Your task to perform on an android device: Go to wifi settings Image 0: 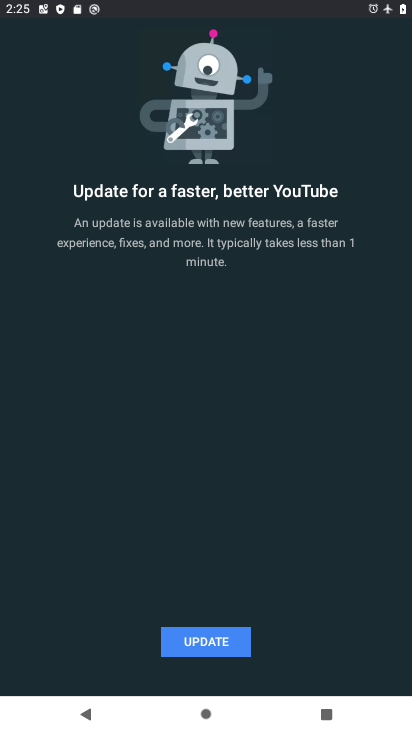
Step 0: drag from (255, 8) to (272, 553)
Your task to perform on an android device: Go to wifi settings Image 1: 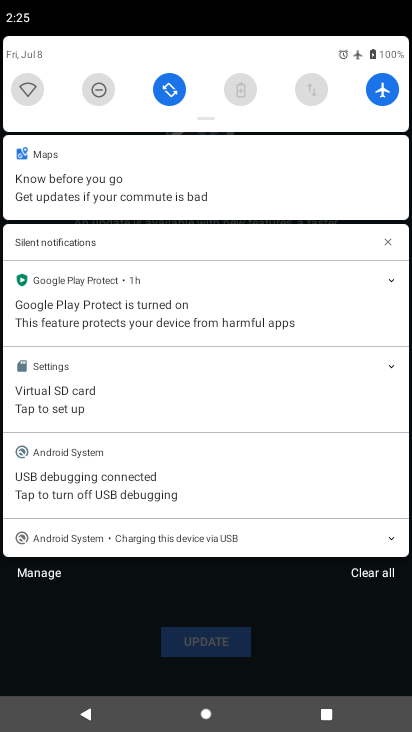
Step 1: click (20, 101)
Your task to perform on an android device: Go to wifi settings Image 2: 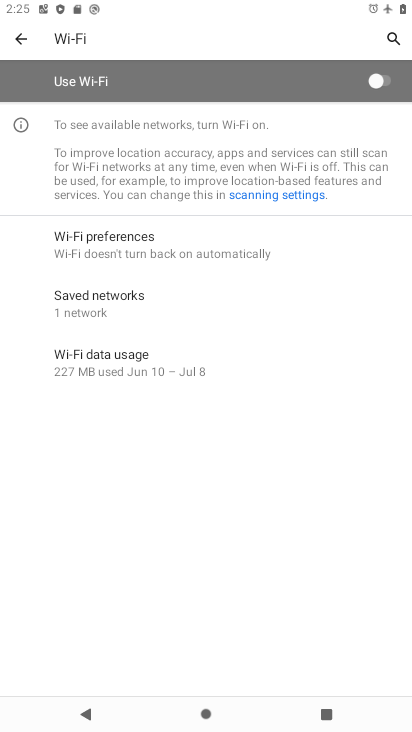
Step 2: task complete